Your task to perform on an android device: toggle translation in the chrome app Image 0: 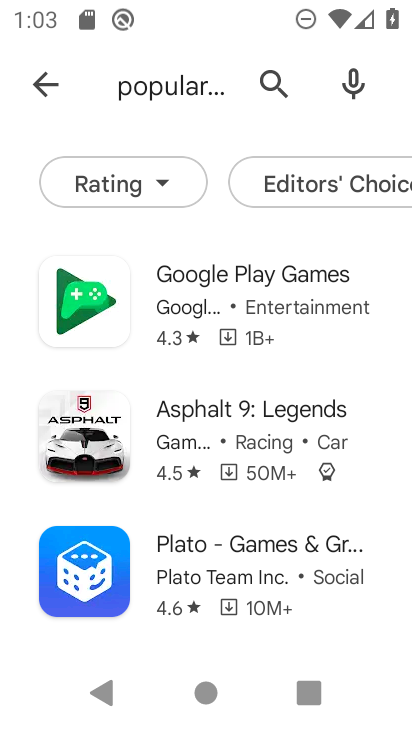
Step 0: press home button
Your task to perform on an android device: toggle translation in the chrome app Image 1: 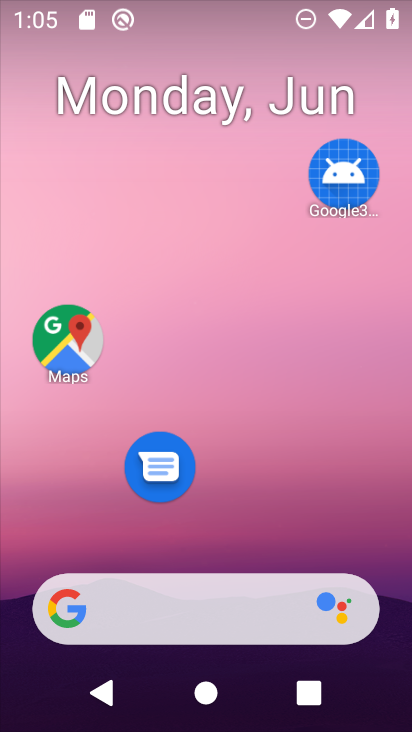
Step 1: click (403, 165)
Your task to perform on an android device: toggle translation in the chrome app Image 2: 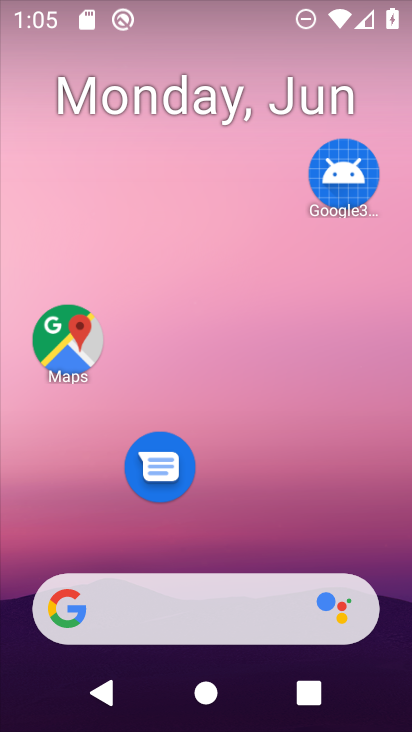
Step 2: drag from (303, 554) to (307, 44)
Your task to perform on an android device: toggle translation in the chrome app Image 3: 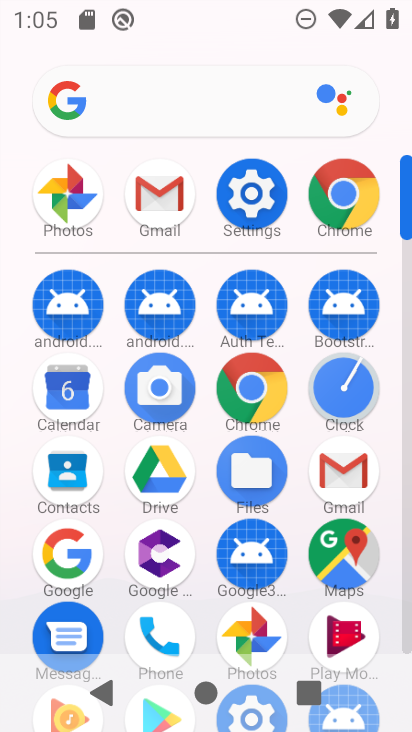
Step 3: click (327, 196)
Your task to perform on an android device: toggle translation in the chrome app Image 4: 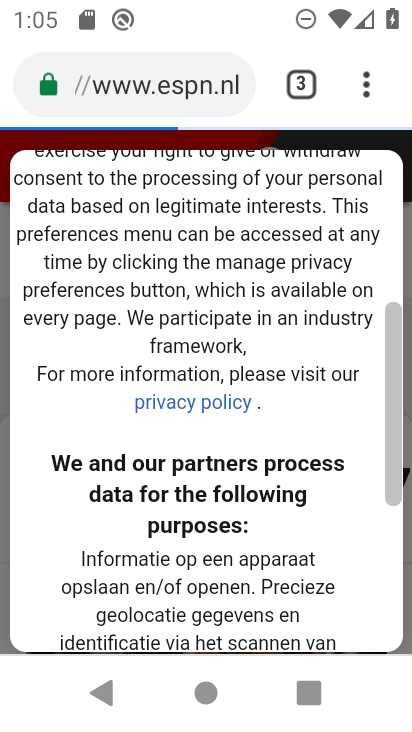
Step 4: drag from (369, 64) to (91, 520)
Your task to perform on an android device: toggle translation in the chrome app Image 5: 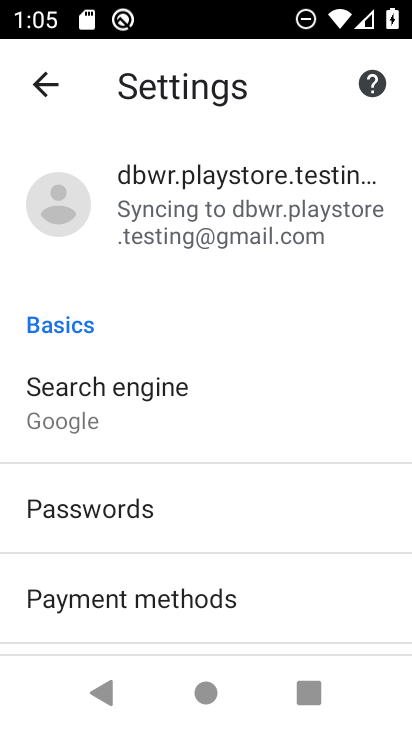
Step 5: drag from (176, 578) to (170, 162)
Your task to perform on an android device: toggle translation in the chrome app Image 6: 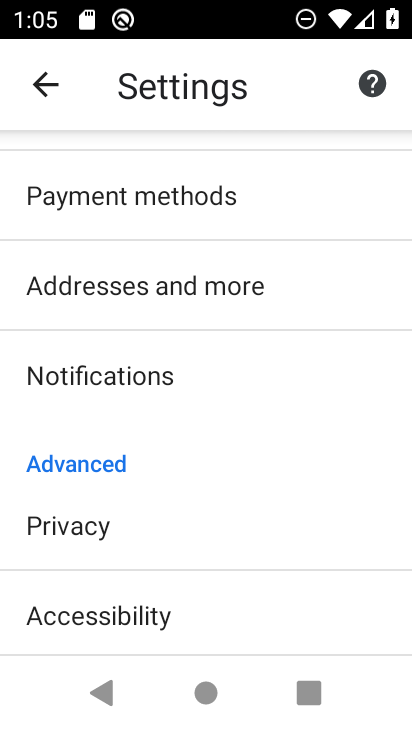
Step 6: drag from (205, 548) to (236, 118)
Your task to perform on an android device: toggle translation in the chrome app Image 7: 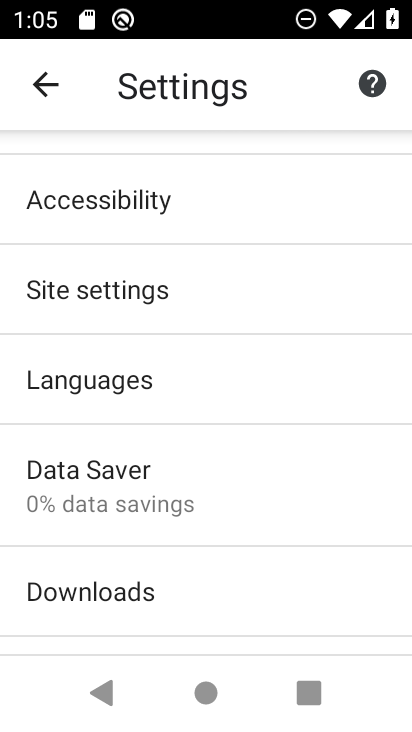
Step 7: click (109, 369)
Your task to perform on an android device: toggle translation in the chrome app Image 8: 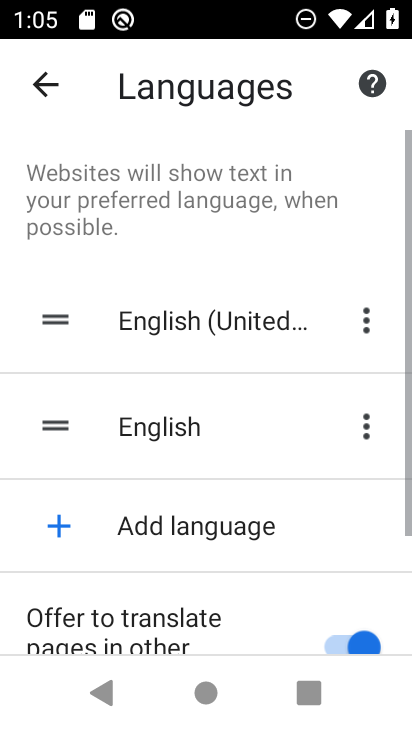
Step 8: click (251, 611)
Your task to perform on an android device: toggle translation in the chrome app Image 9: 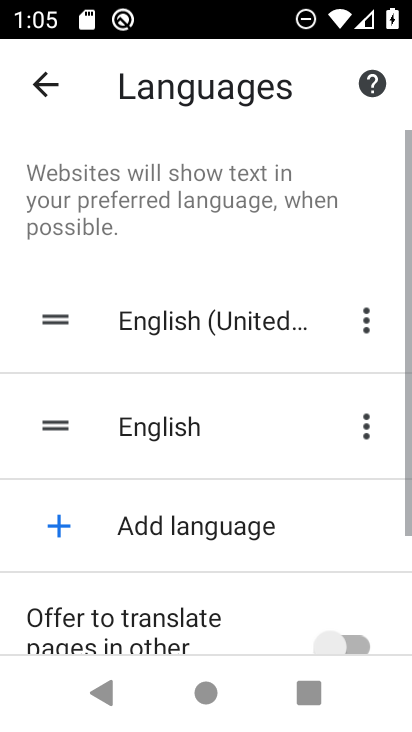
Step 9: task complete